Your task to perform on an android device: set the stopwatch Image 0: 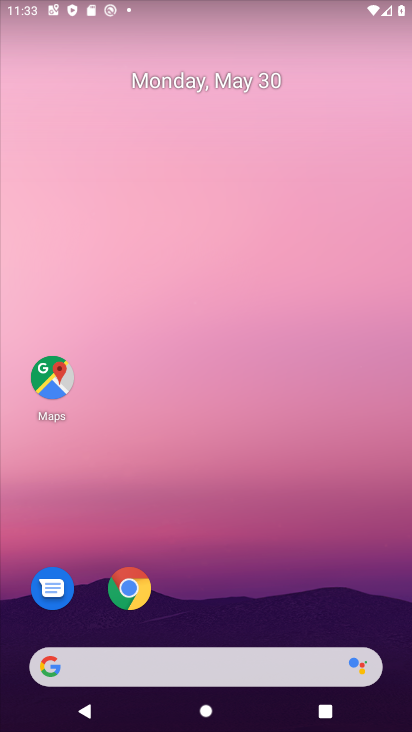
Step 0: drag from (220, 609) to (251, 237)
Your task to perform on an android device: set the stopwatch Image 1: 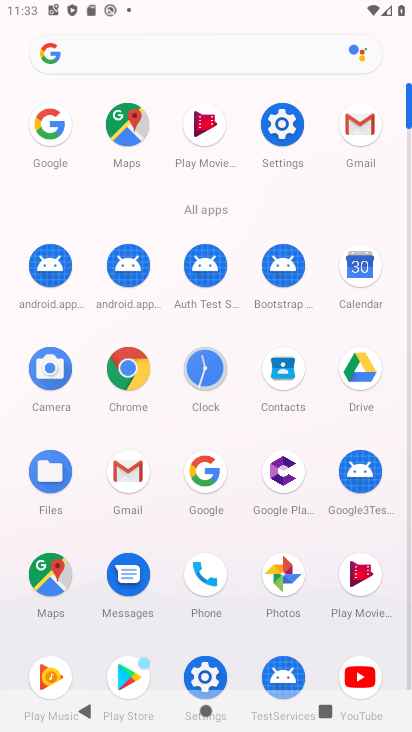
Step 1: click (206, 359)
Your task to perform on an android device: set the stopwatch Image 2: 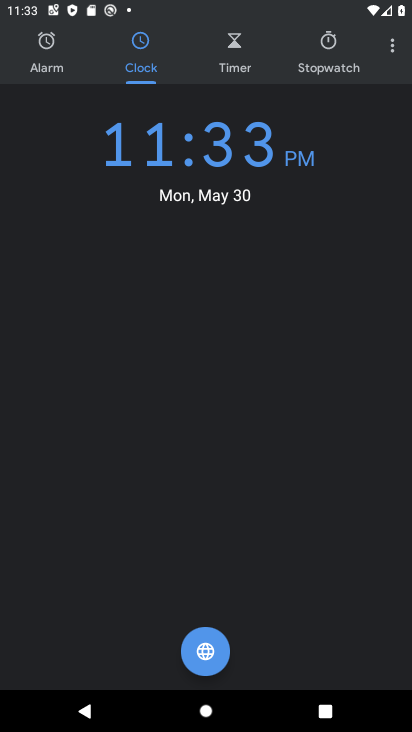
Step 2: click (322, 69)
Your task to perform on an android device: set the stopwatch Image 3: 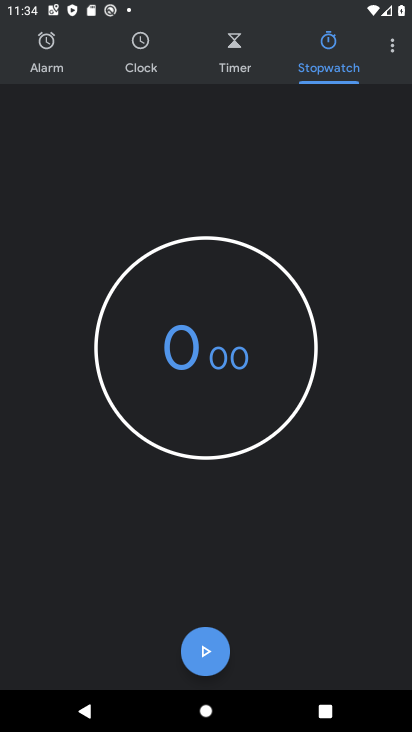
Step 3: click (204, 639)
Your task to perform on an android device: set the stopwatch Image 4: 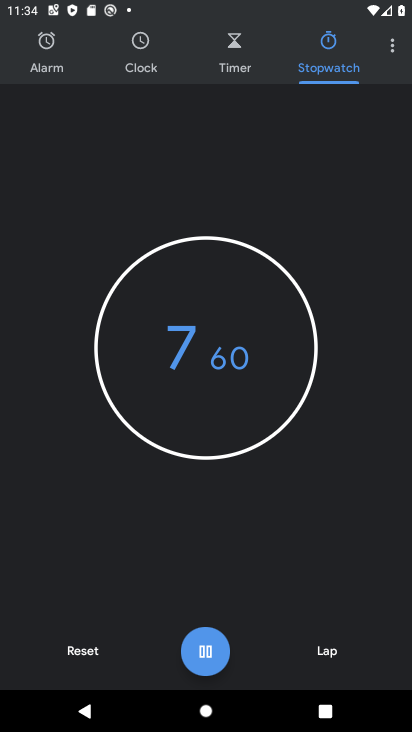
Step 4: task complete